Your task to perform on an android device: What's the latest news in tech? Image 0: 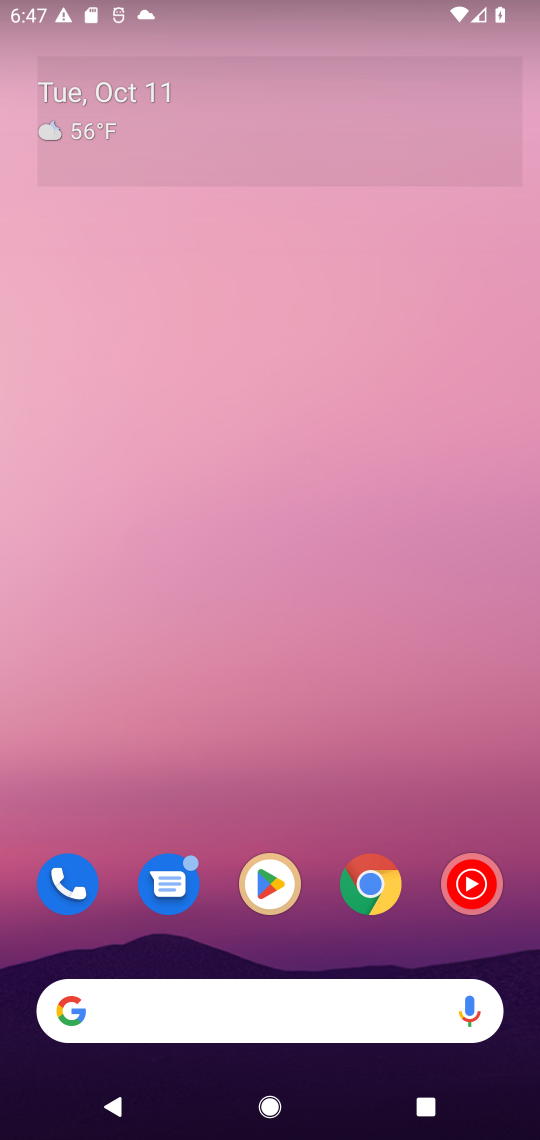
Step 0: drag from (281, 708) to (270, 0)
Your task to perform on an android device: What's the latest news in tech? Image 1: 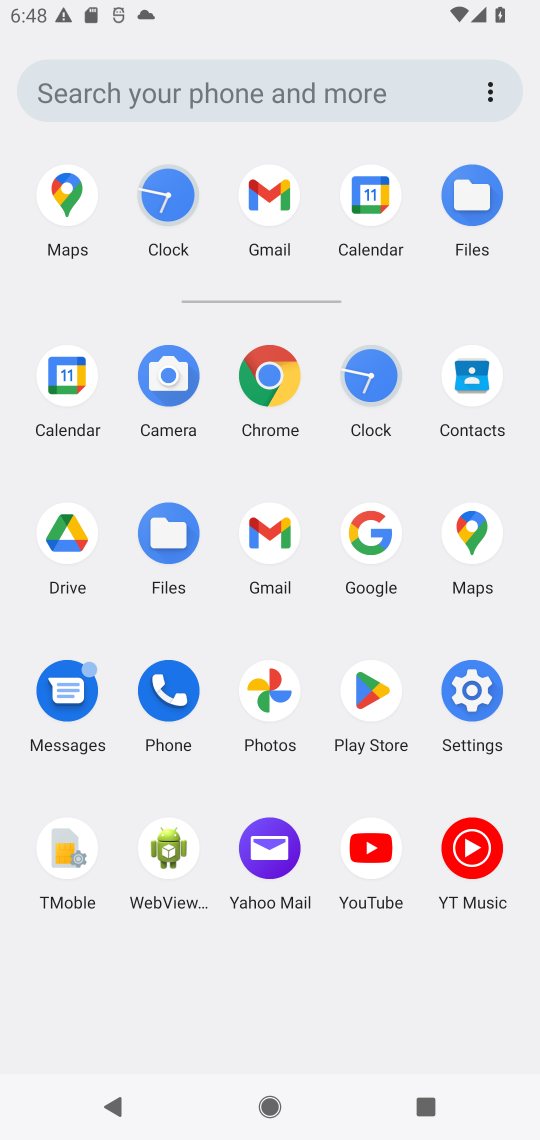
Step 1: click (267, 380)
Your task to perform on an android device: What's the latest news in tech? Image 2: 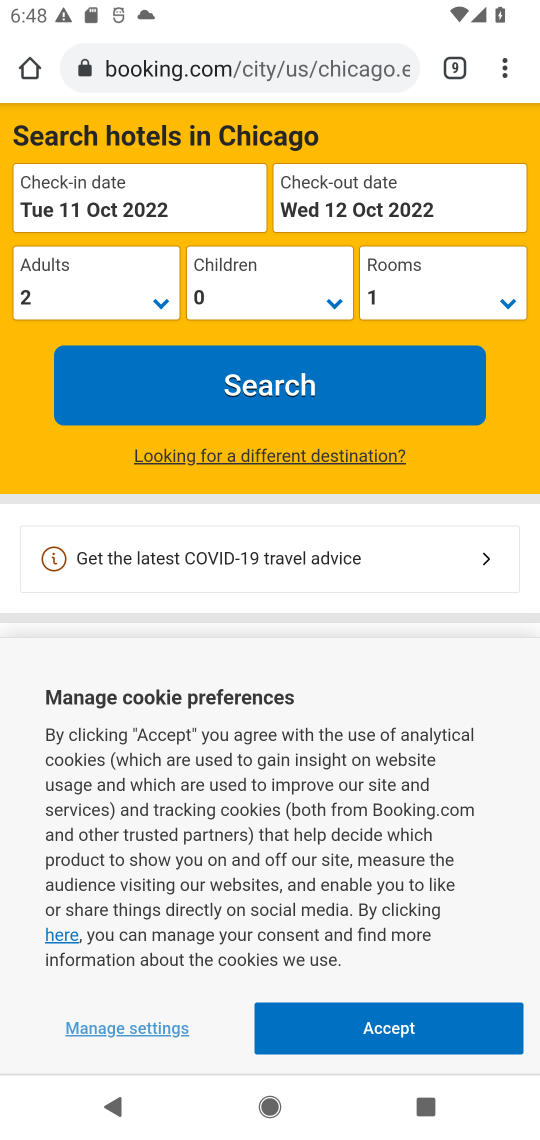
Step 2: drag from (503, 75) to (304, 240)
Your task to perform on an android device: What's the latest news in tech? Image 3: 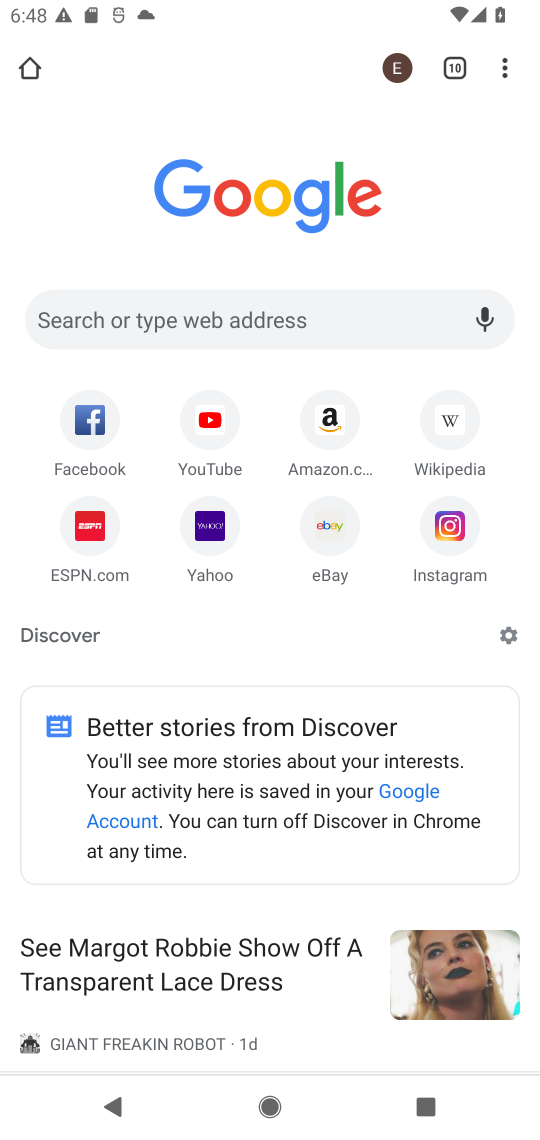
Step 3: click (244, 308)
Your task to perform on an android device: What's the latest news in tech? Image 4: 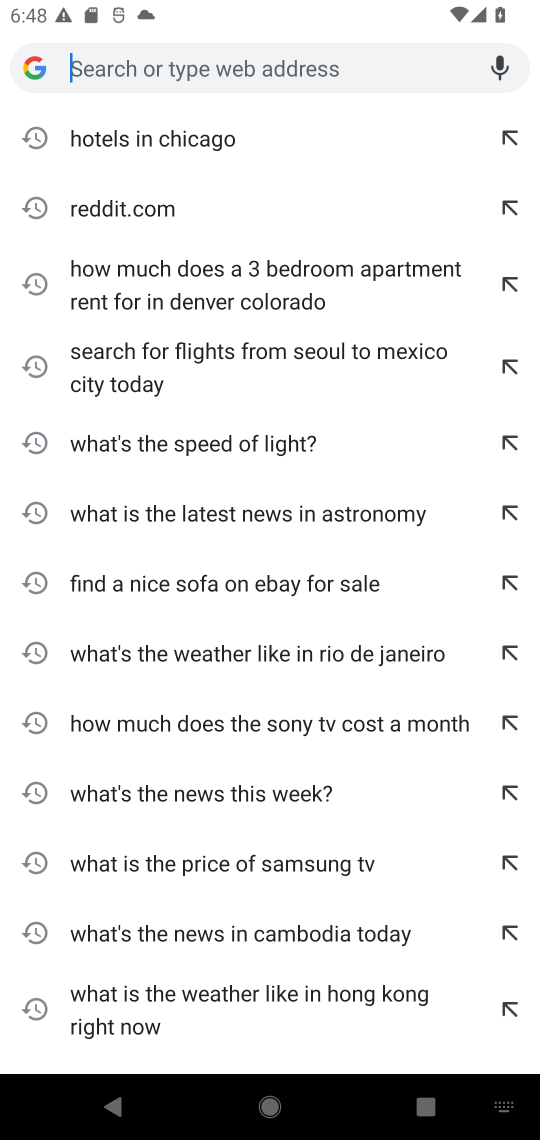
Step 4: type "latest news in tech?"
Your task to perform on an android device: What's the latest news in tech? Image 5: 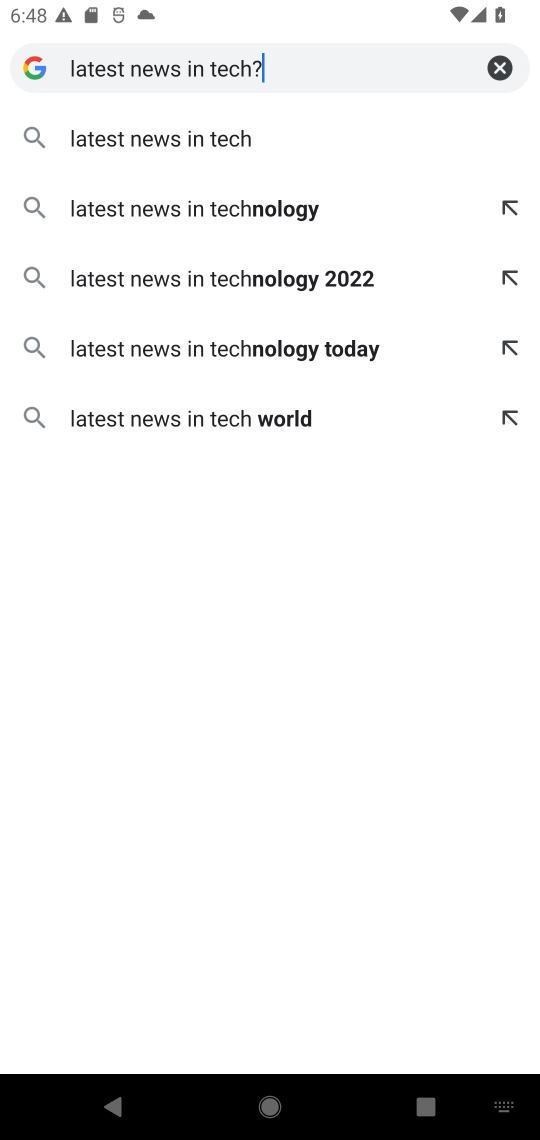
Step 5: type ""
Your task to perform on an android device: What's the latest news in tech? Image 6: 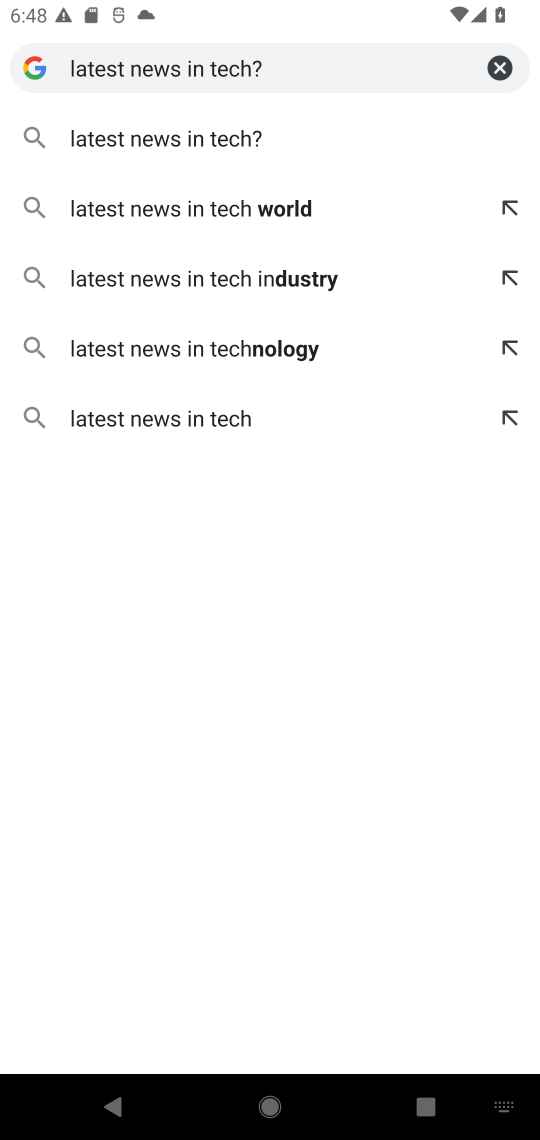
Step 6: click (228, 145)
Your task to perform on an android device: What's the latest news in tech? Image 7: 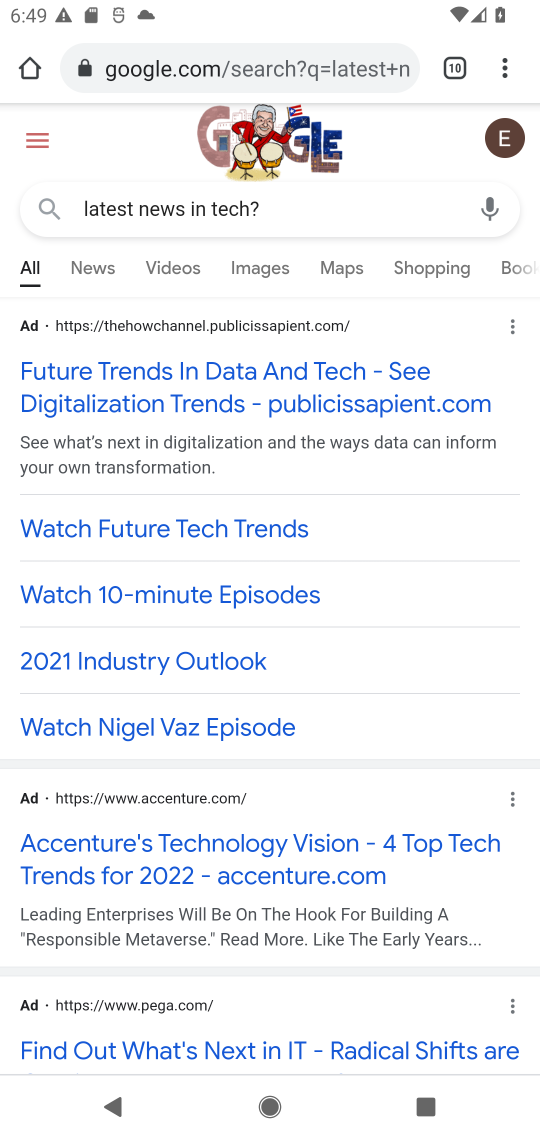
Step 7: click (322, 211)
Your task to perform on an android device: What's the latest news in tech? Image 8: 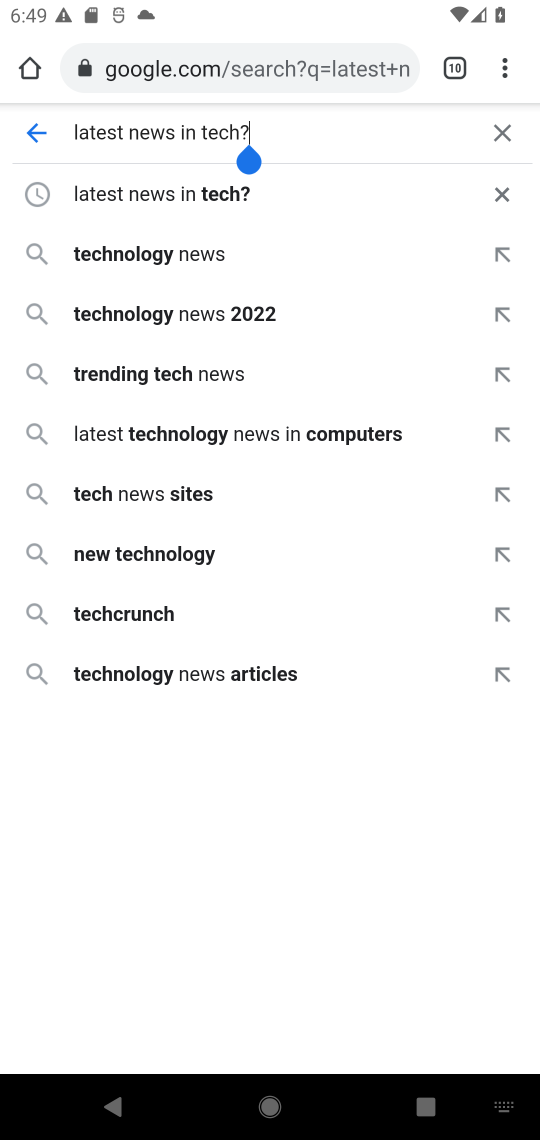
Step 8: click (497, 131)
Your task to perform on an android device: What's the latest news in tech? Image 9: 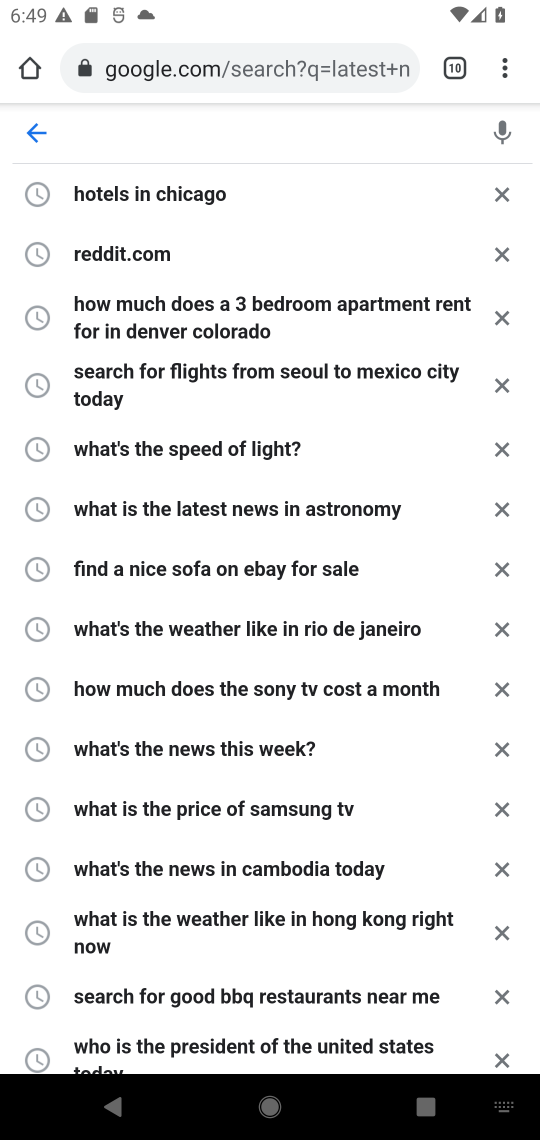
Step 9: type "What's the latest news in tech?"
Your task to perform on an android device: What's the latest news in tech? Image 10: 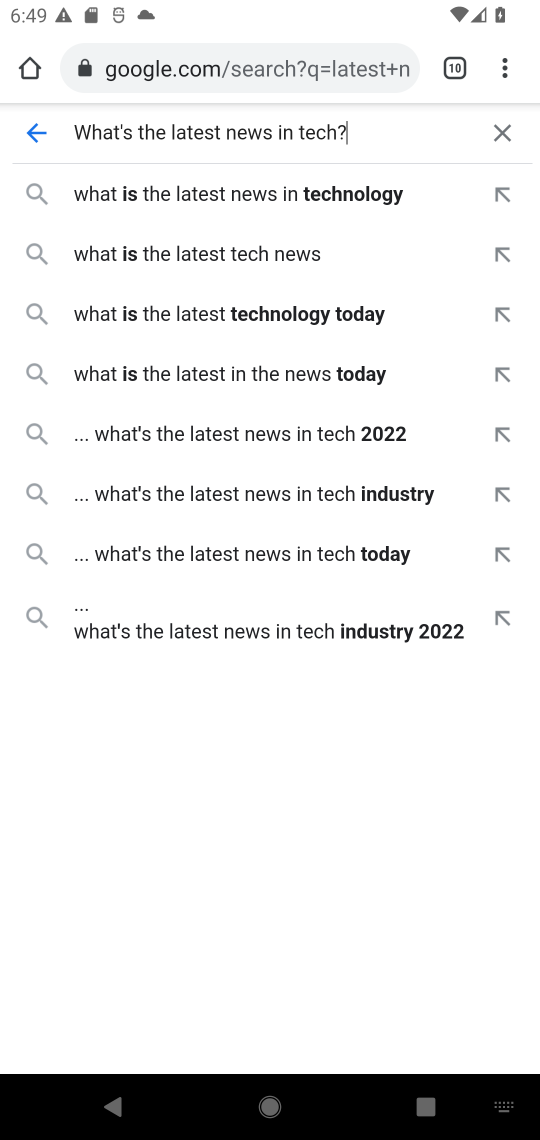
Step 10: click (240, 189)
Your task to perform on an android device: What's the latest news in tech? Image 11: 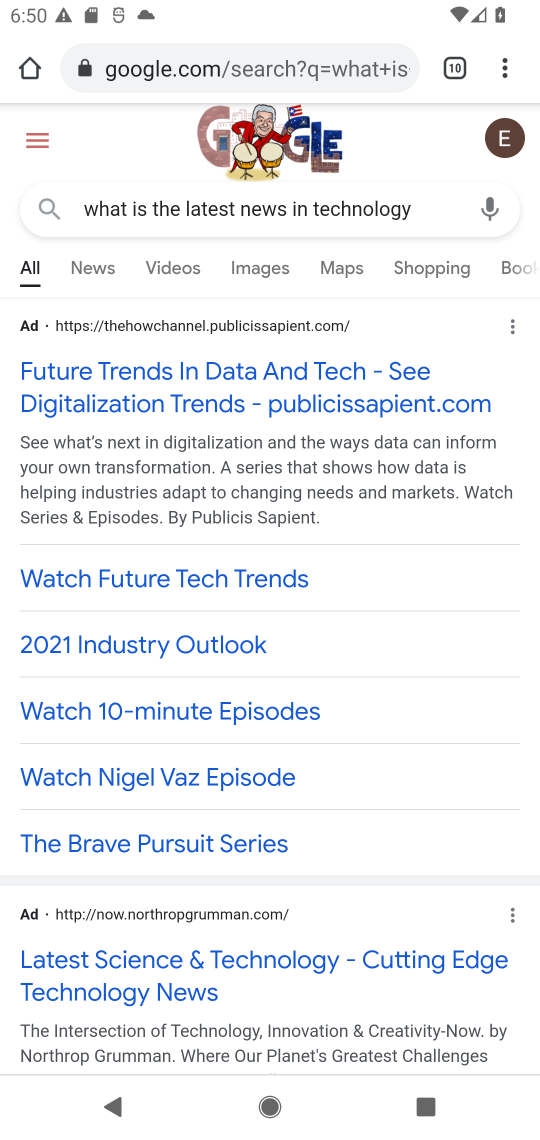
Step 11: task complete